Your task to perform on an android device: View the shopping cart on walmart.com. Image 0: 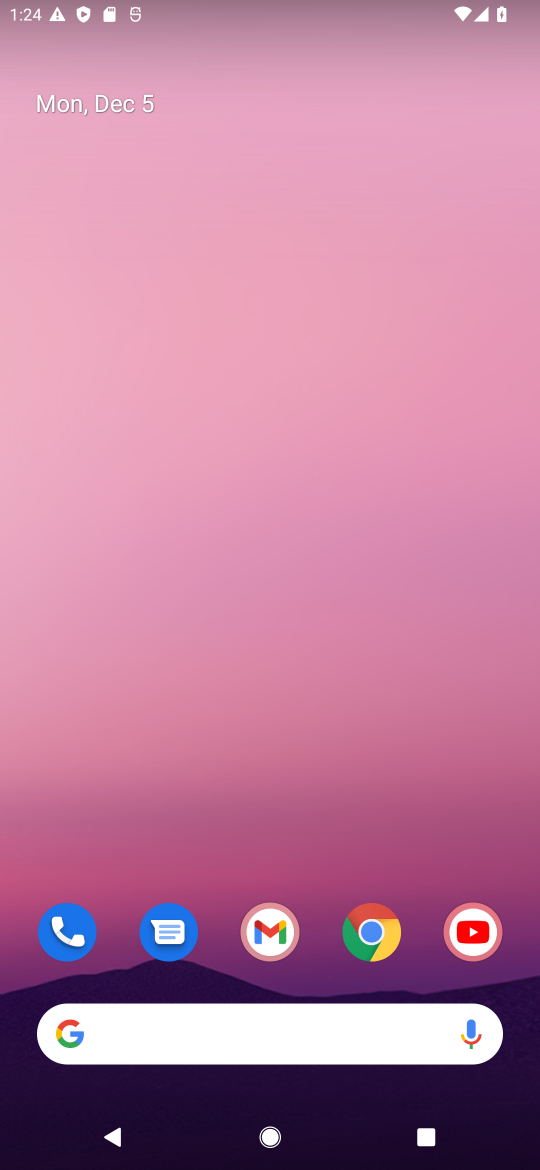
Step 0: click (82, 1033)
Your task to perform on an android device: View the shopping cart on walmart.com. Image 1: 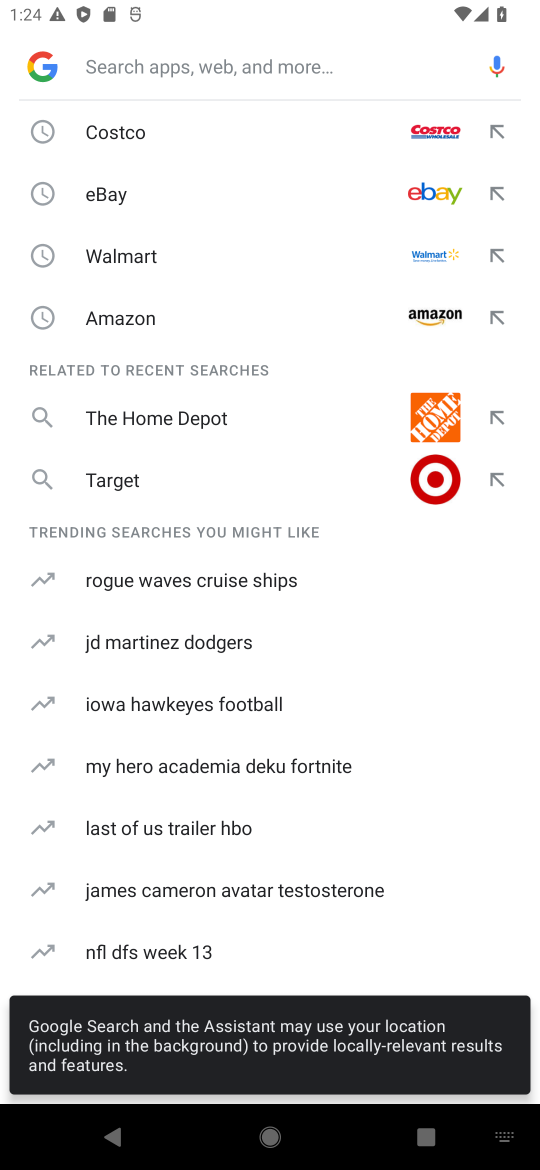
Step 1: click (352, 77)
Your task to perform on an android device: View the shopping cart on walmart.com. Image 2: 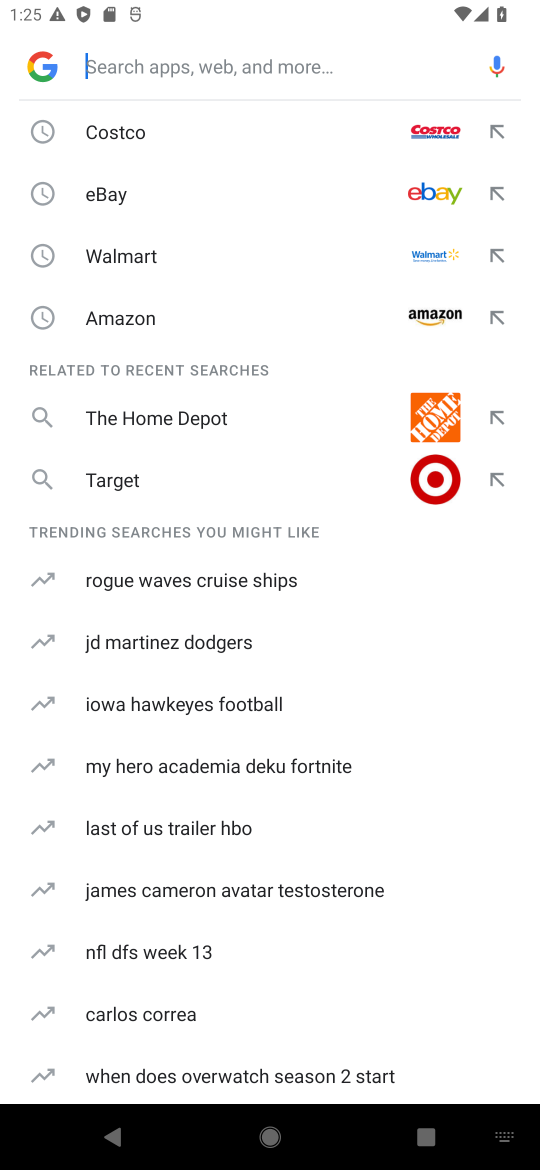
Step 2: click (182, 262)
Your task to perform on an android device: View the shopping cart on walmart.com. Image 3: 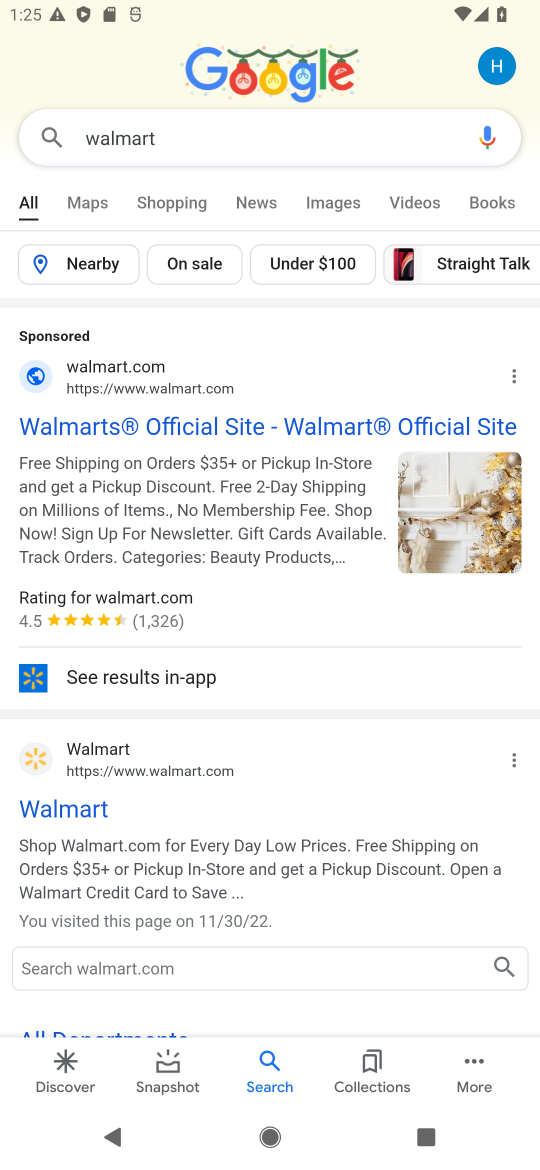
Step 3: click (204, 433)
Your task to perform on an android device: View the shopping cart on walmart.com. Image 4: 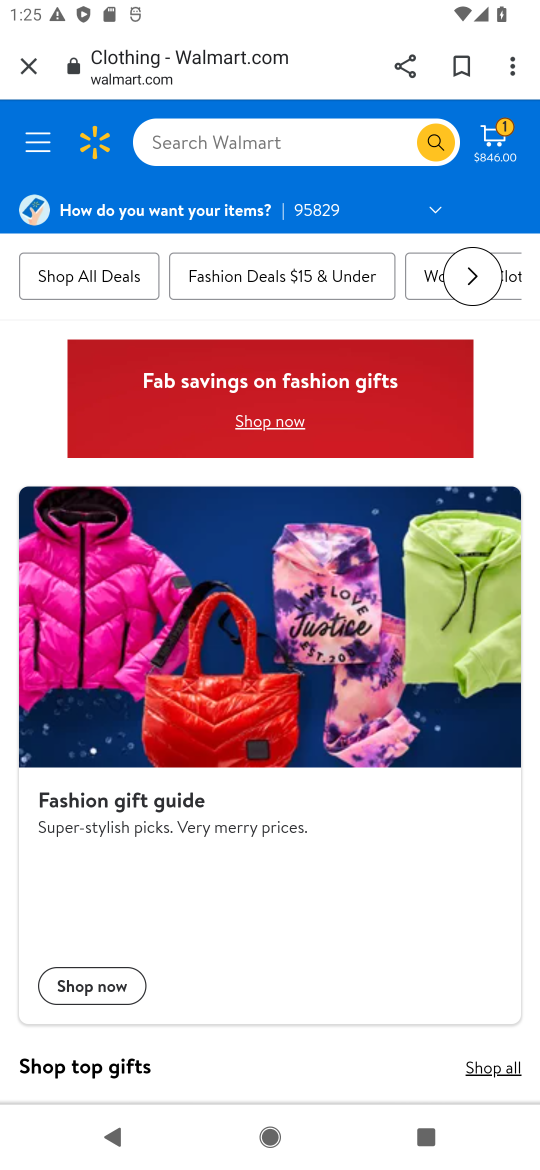
Step 4: click (329, 146)
Your task to perform on an android device: View the shopping cart on walmart.com. Image 5: 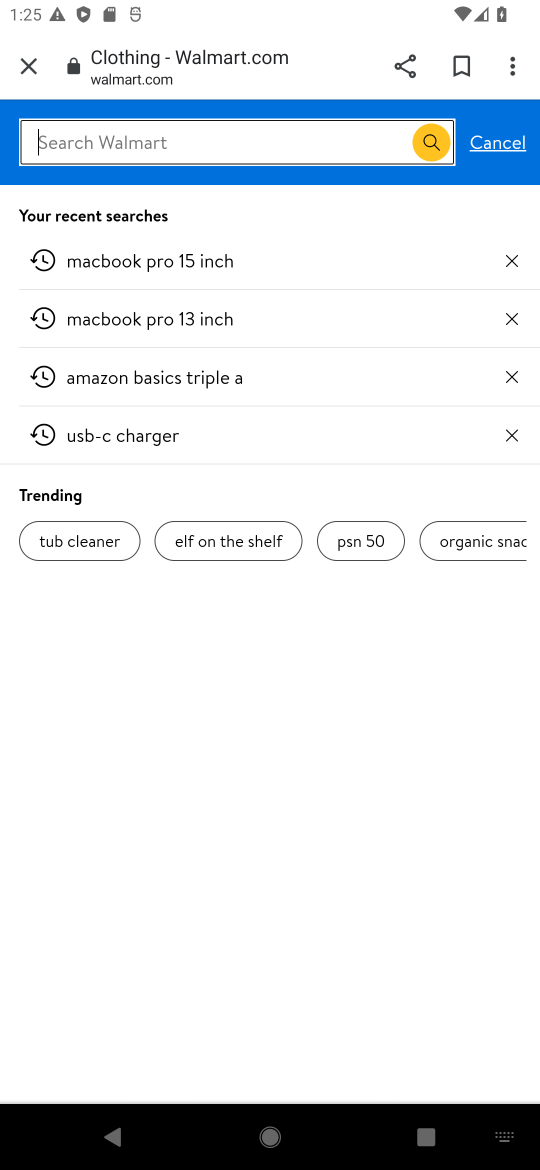
Step 5: click (31, 74)
Your task to perform on an android device: View the shopping cart on walmart.com. Image 6: 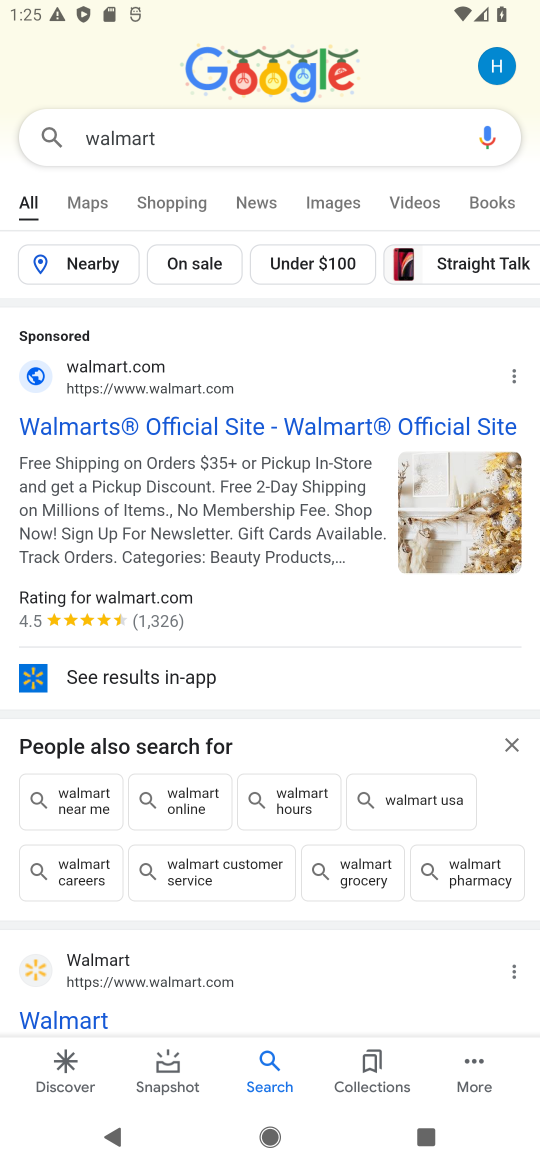
Step 6: click (254, 425)
Your task to perform on an android device: View the shopping cart on walmart.com. Image 7: 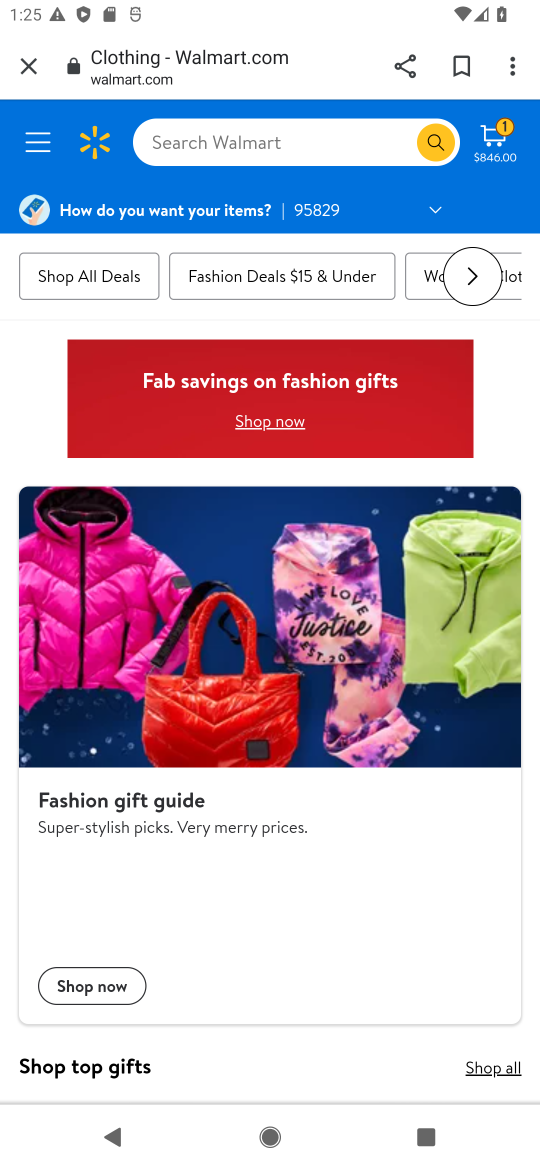
Step 7: click (502, 130)
Your task to perform on an android device: View the shopping cart on walmart.com. Image 8: 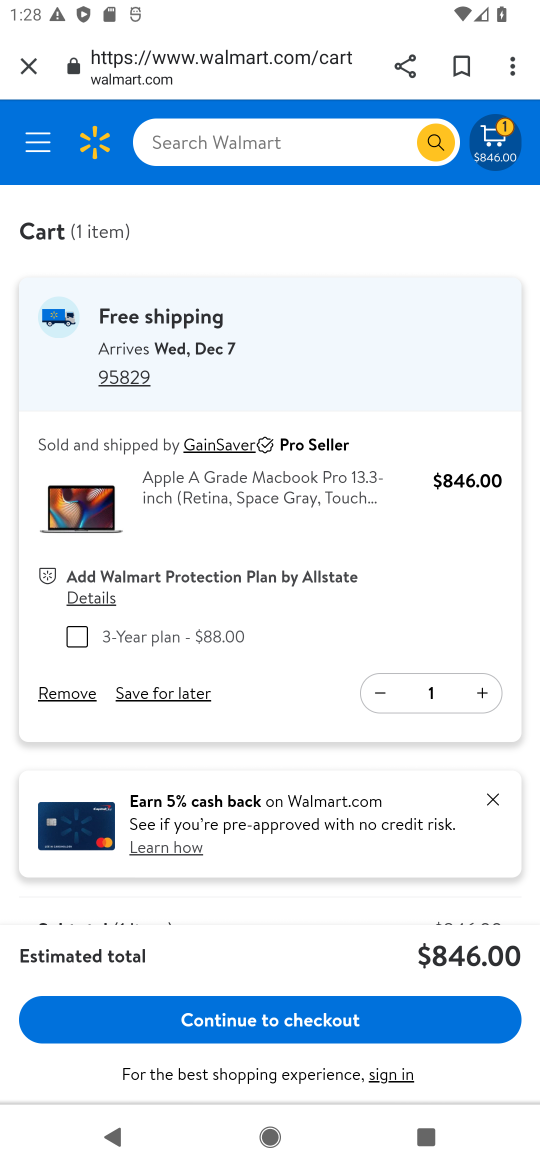
Step 8: task complete